Your task to perform on an android device: Go to Maps Image 0: 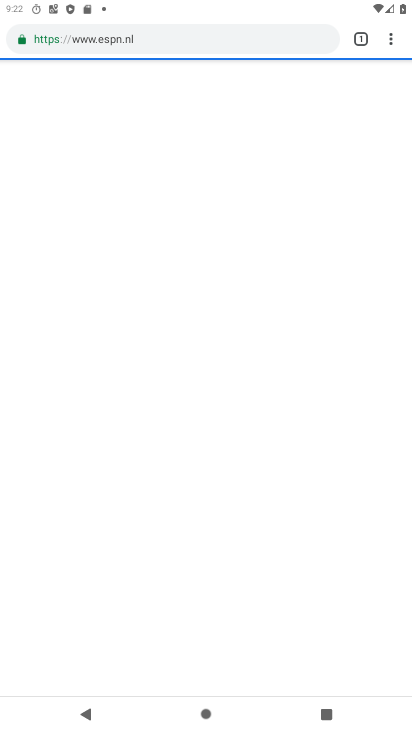
Step 0: press home button
Your task to perform on an android device: Go to Maps Image 1: 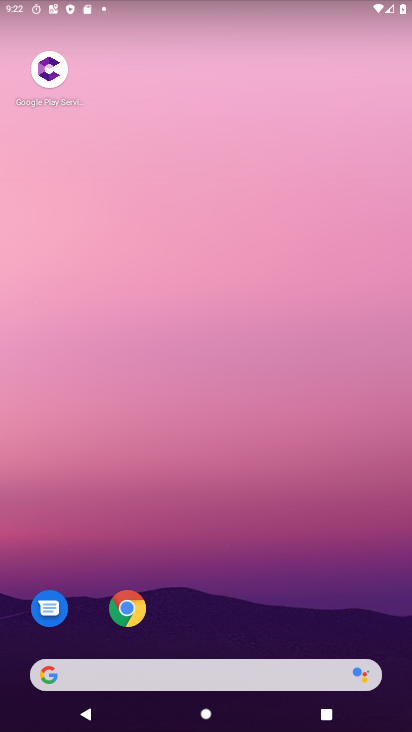
Step 1: drag from (337, 617) to (329, 150)
Your task to perform on an android device: Go to Maps Image 2: 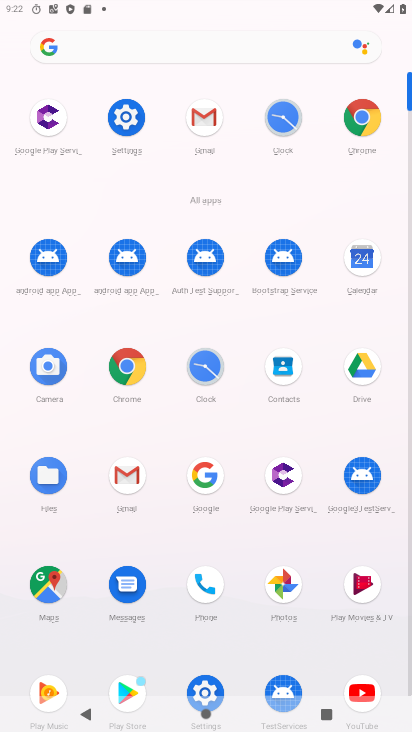
Step 2: drag from (313, 571) to (317, 322)
Your task to perform on an android device: Go to Maps Image 3: 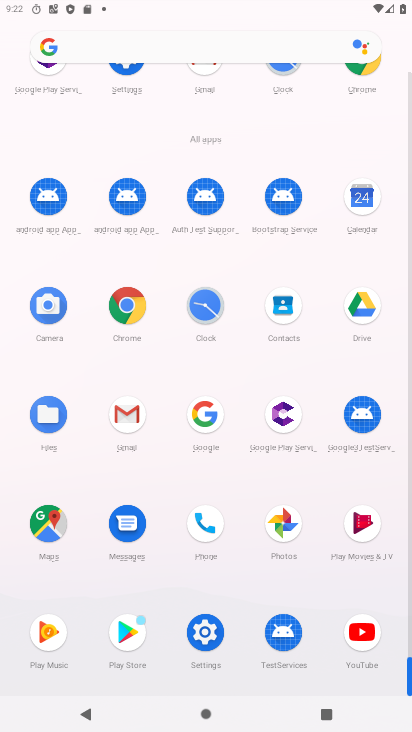
Step 3: click (47, 529)
Your task to perform on an android device: Go to Maps Image 4: 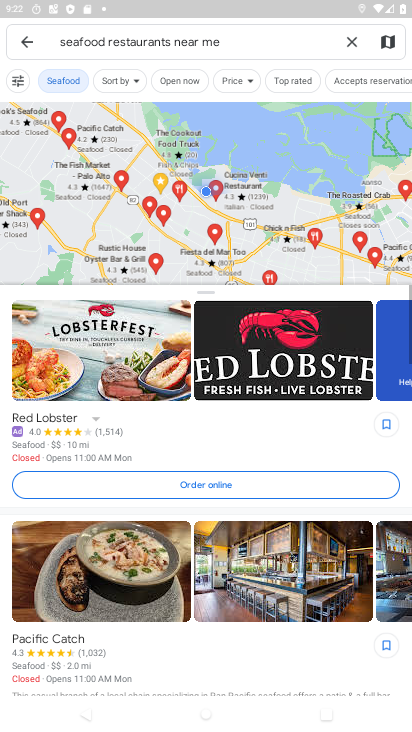
Step 4: task complete